Your task to perform on an android device: Search for seafood restaurants on Google Maps Image 0: 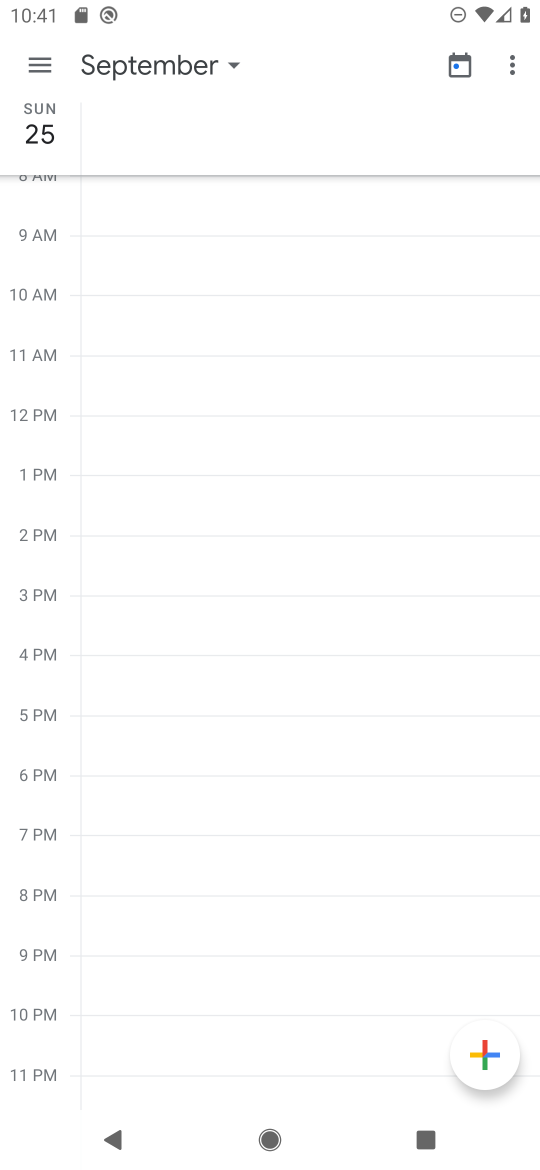
Step 0: press home button
Your task to perform on an android device: Search for seafood restaurants on Google Maps Image 1: 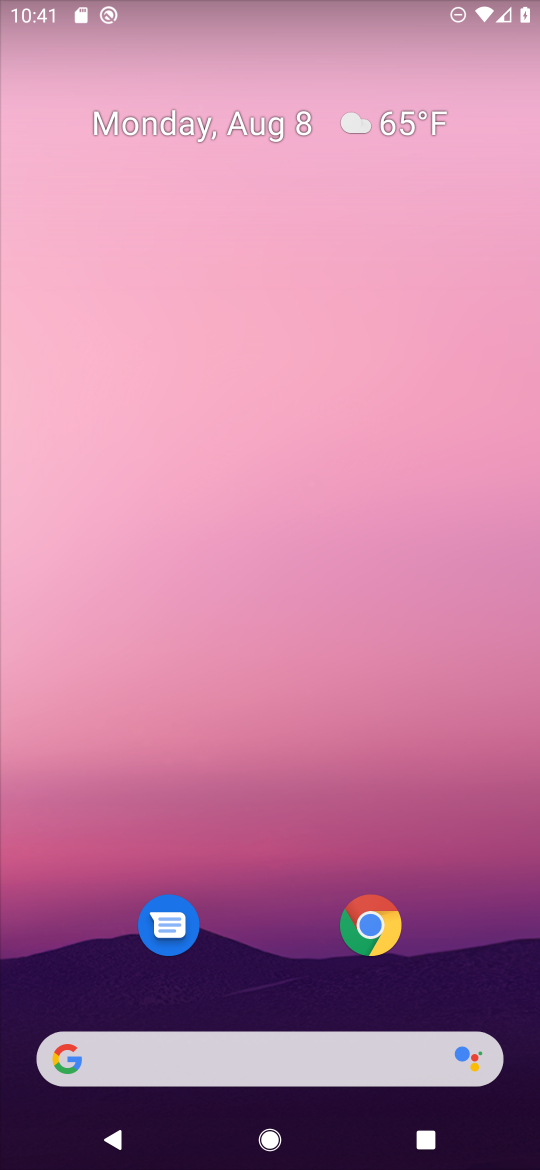
Step 1: drag from (257, 844) to (349, 238)
Your task to perform on an android device: Search for seafood restaurants on Google Maps Image 2: 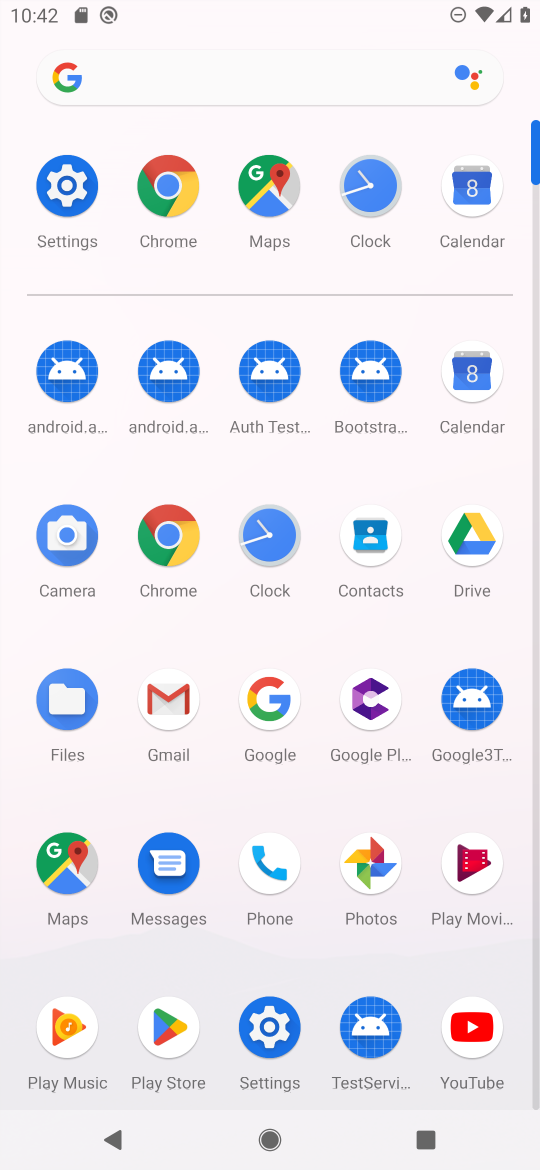
Step 2: click (68, 857)
Your task to perform on an android device: Search for seafood restaurants on Google Maps Image 3: 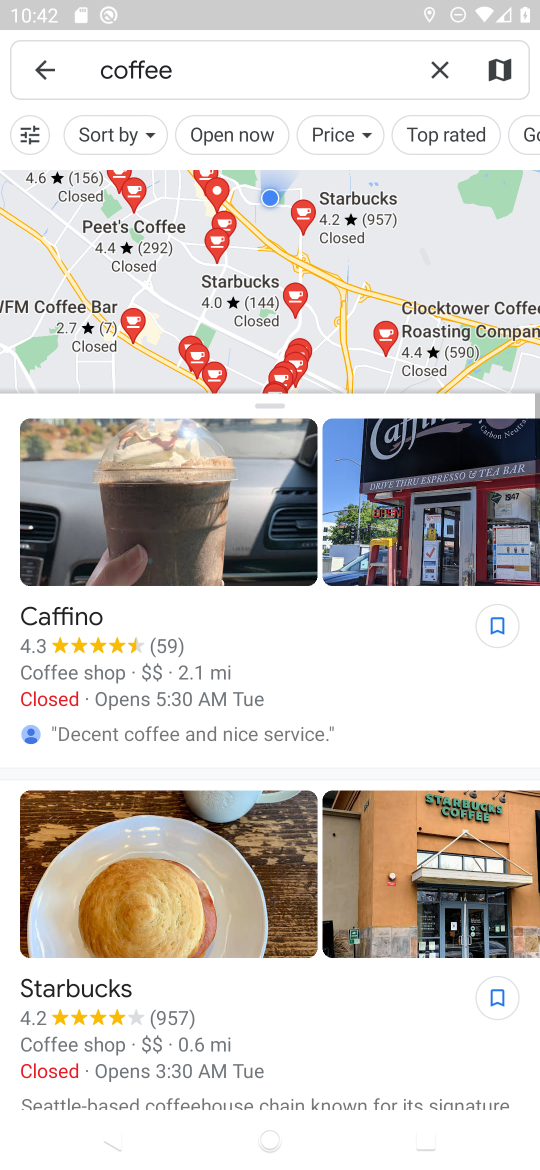
Step 3: click (446, 62)
Your task to perform on an android device: Search for seafood restaurants on Google Maps Image 4: 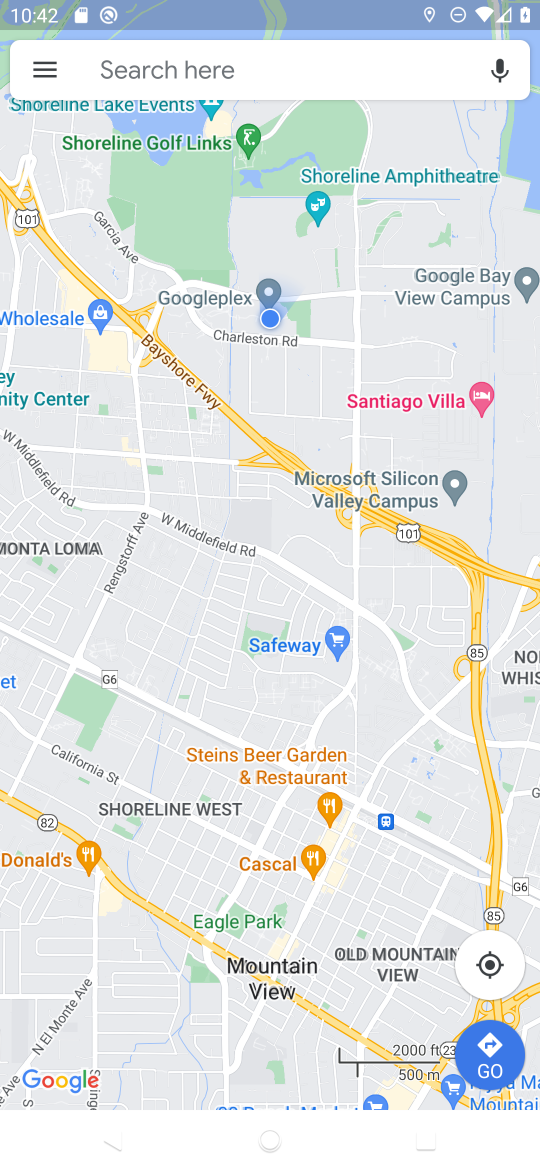
Step 4: click (234, 74)
Your task to perform on an android device: Search for seafood restaurants on Google Maps Image 5: 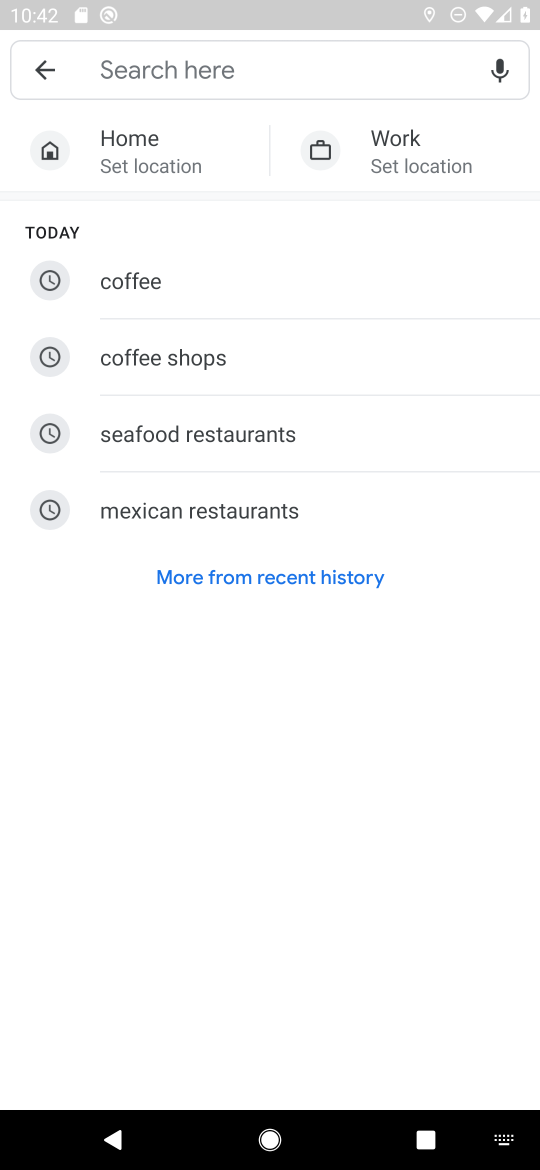
Step 5: click (269, 444)
Your task to perform on an android device: Search for seafood restaurants on Google Maps Image 6: 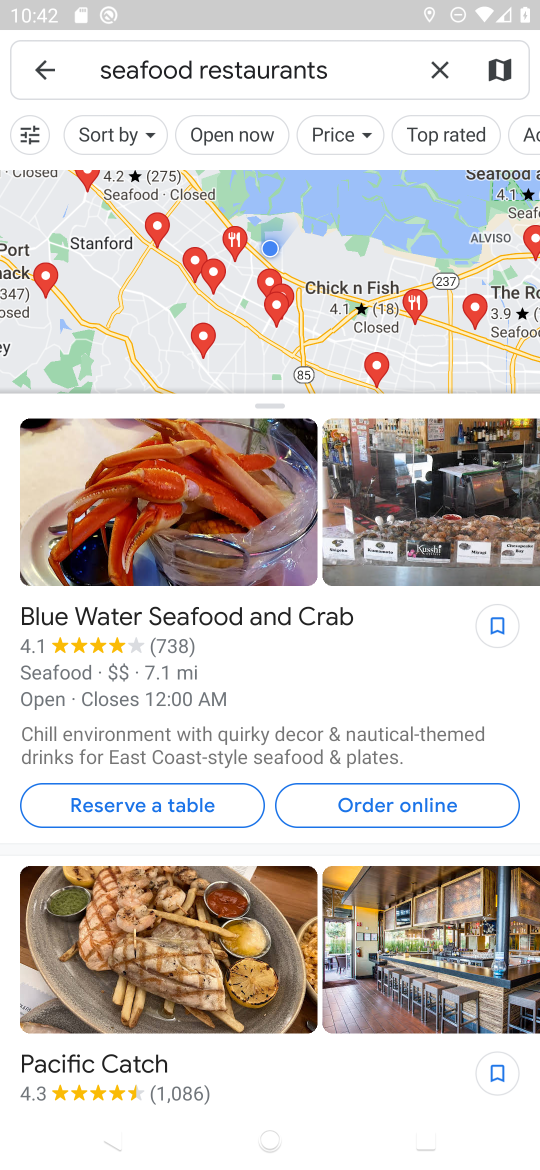
Step 6: task complete